Your task to perform on an android device: Show the shopping cart on costco.com. Add "macbook pro 15 inch" to the cart on costco.com Image 0: 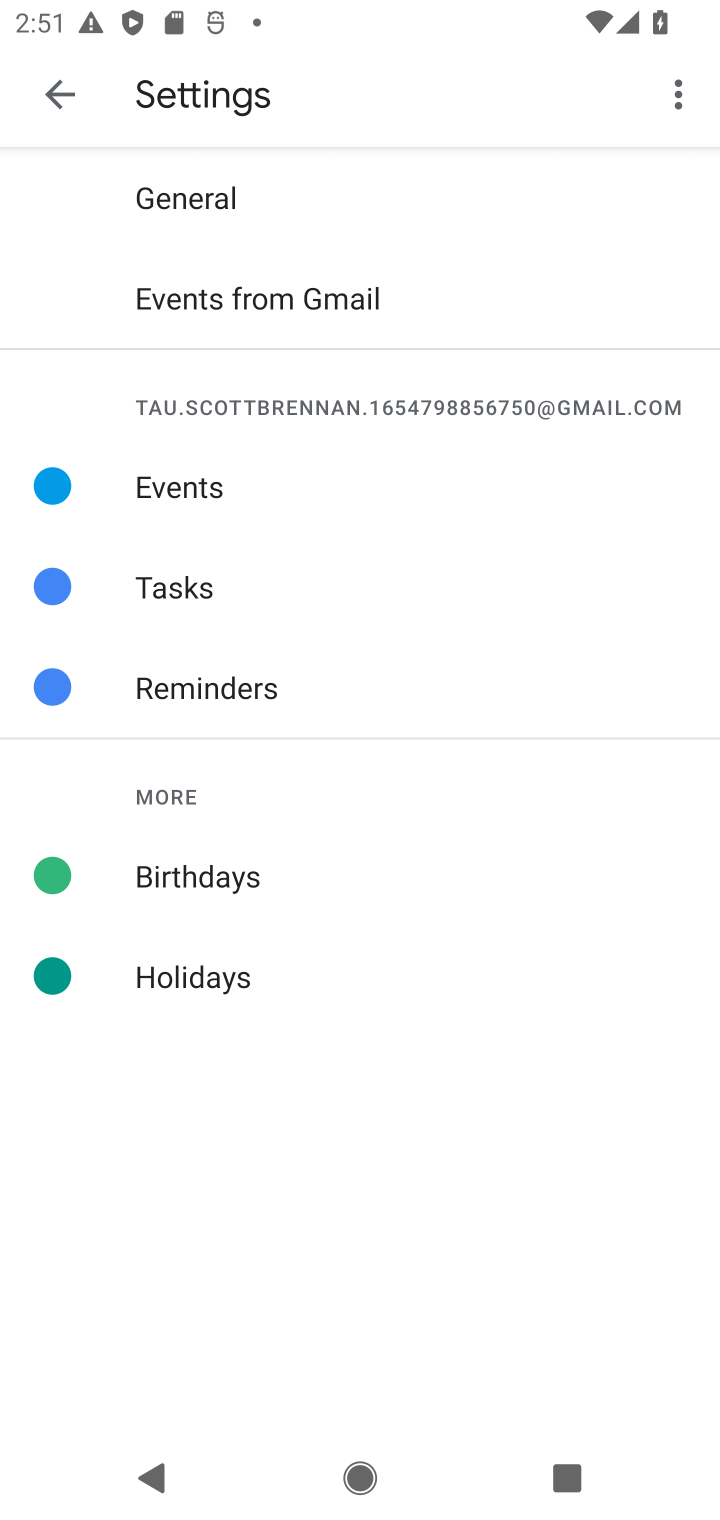
Step 0: press home button
Your task to perform on an android device: Show the shopping cart on costco.com. Add "macbook pro 15 inch" to the cart on costco.com Image 1: 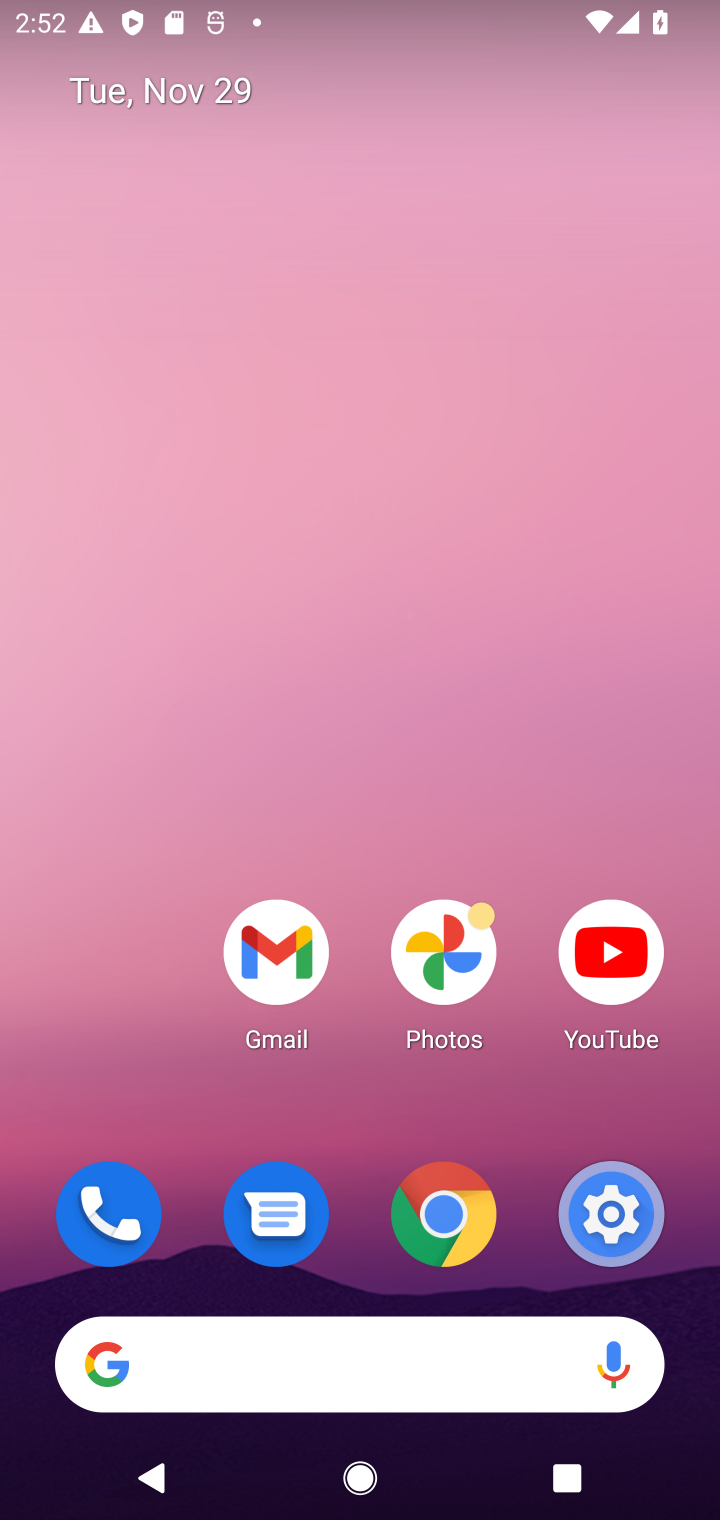
Step 1: click (241, 1344)
Your task to perform on an android device: Show the shopping cart on costco.com. Add "macbook pro 15 inch" to the cart on costco.com Image 2: 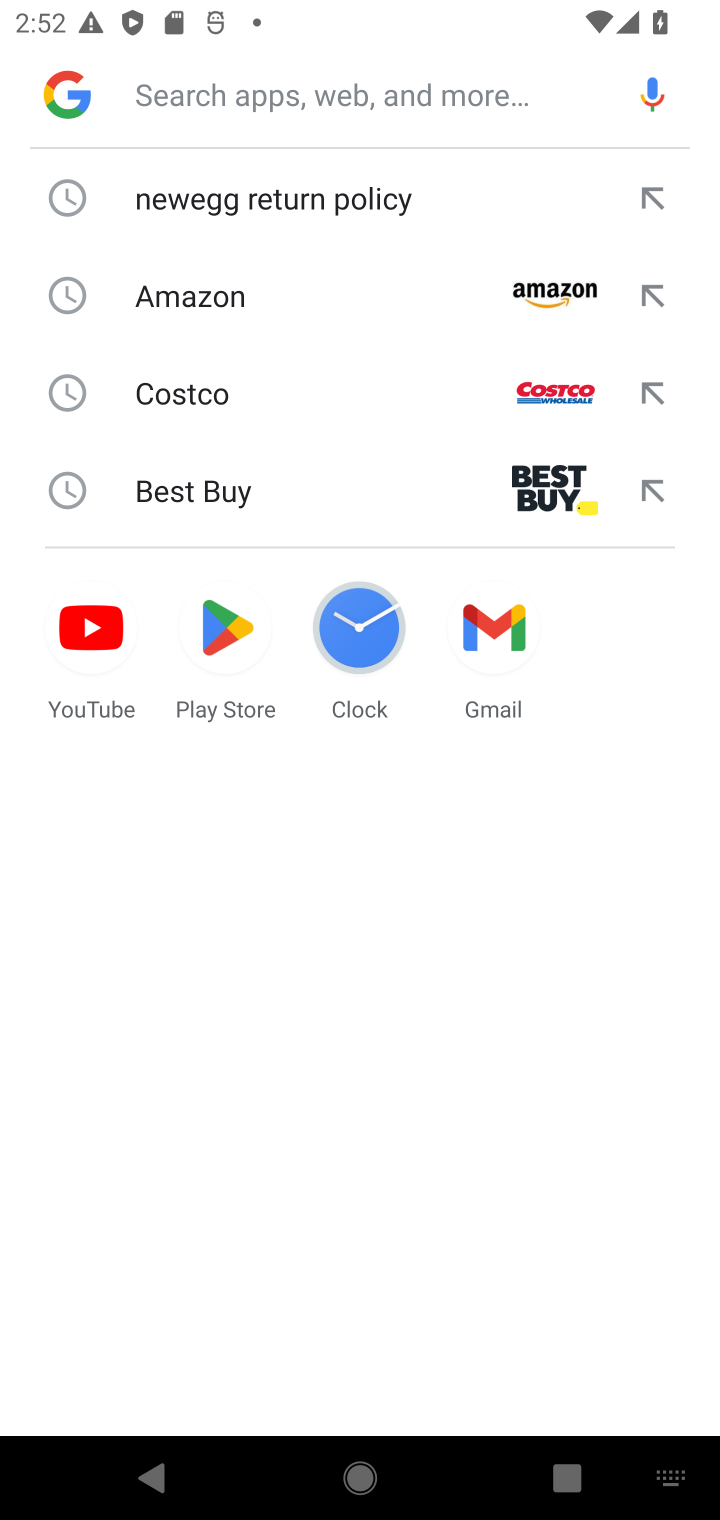
Step 2: type "costco.com"
Your task to perform on an android device: Show the shopping cart on costco.com. Add "macbook pro 15 inch" to the cart on costco.com Image 3: 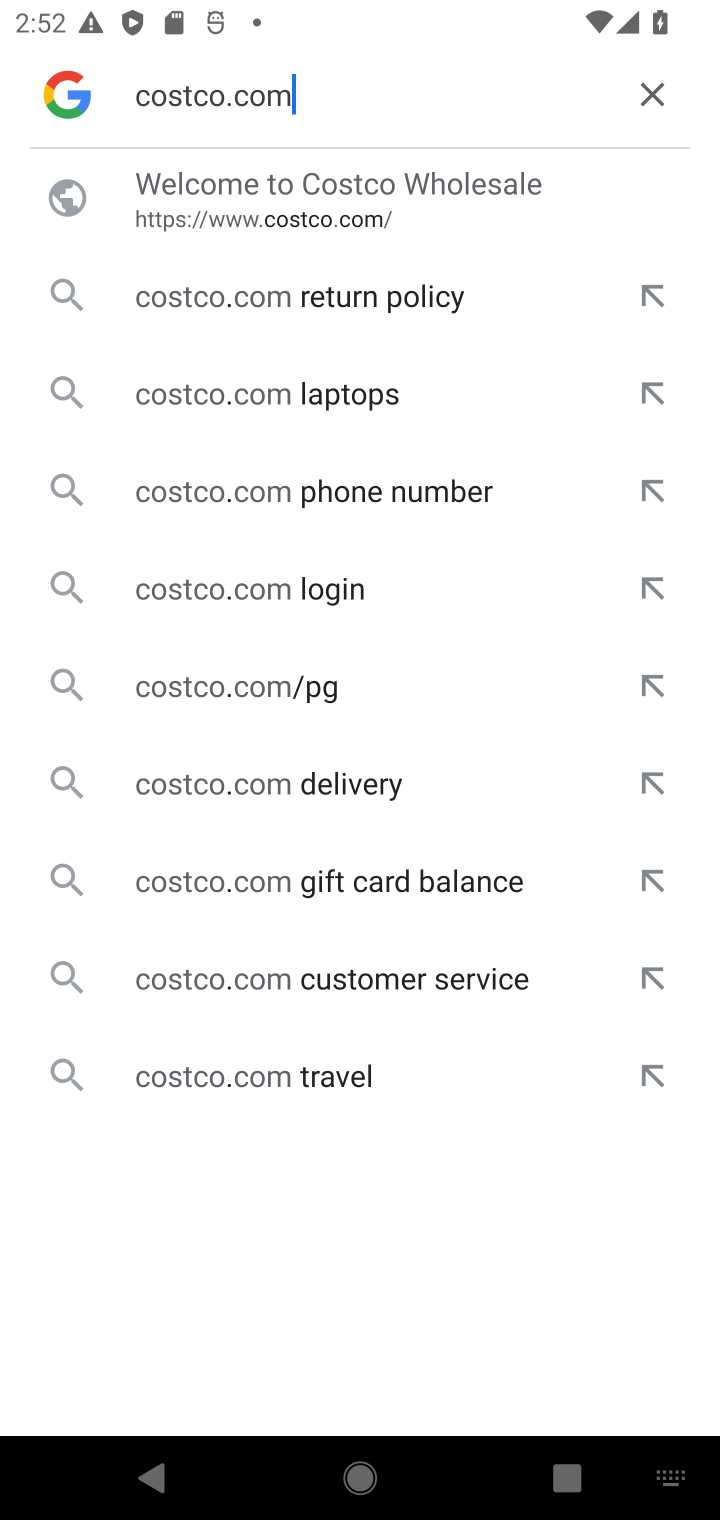
Step 3: click (316, 221)
Your task to perform on an android device: Show the shopping cart on costco.com. Add "macbook pro 15 inch" to the cart on costco.com Image 4: 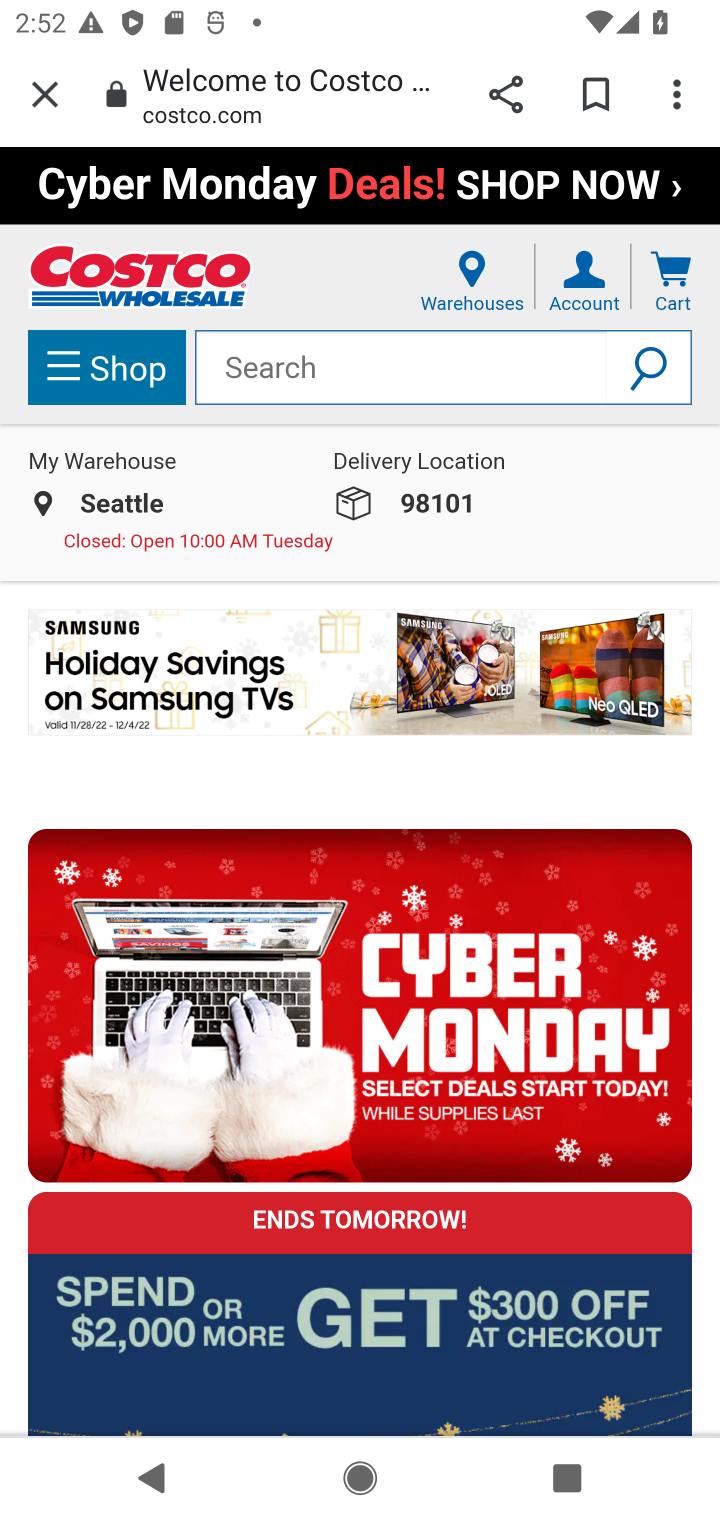
Step 4: click (247, 386)
Your task to perform on an android device: Show the shopping cart on costco.com. Add "macbook pro 15 inch" to the cart on costco.com Image 5: 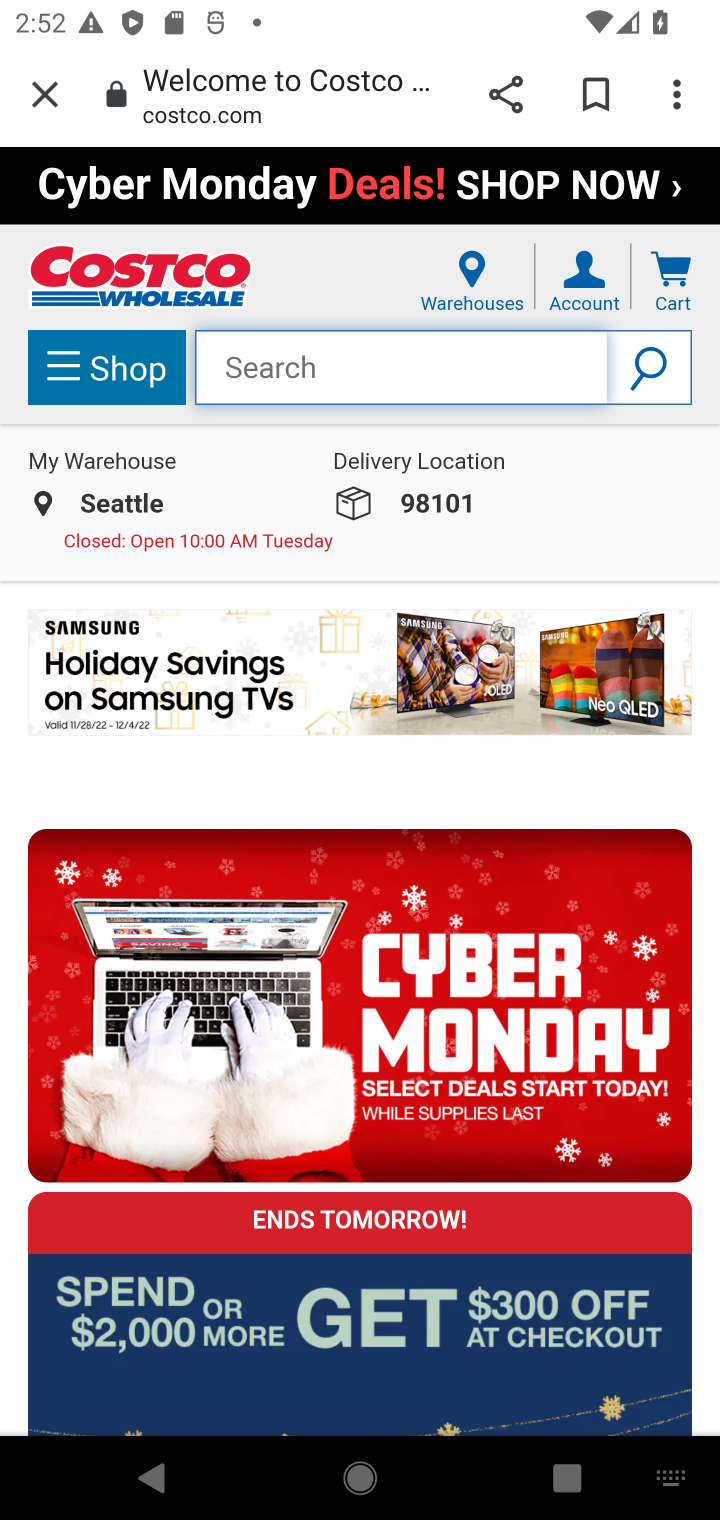
Step 5: type "macbook pro 15"
Your task to perform on an android device: Show the shopping cart on costco.com. Add "macbook pro 15 inch" to the cart on costco.com Image 6: 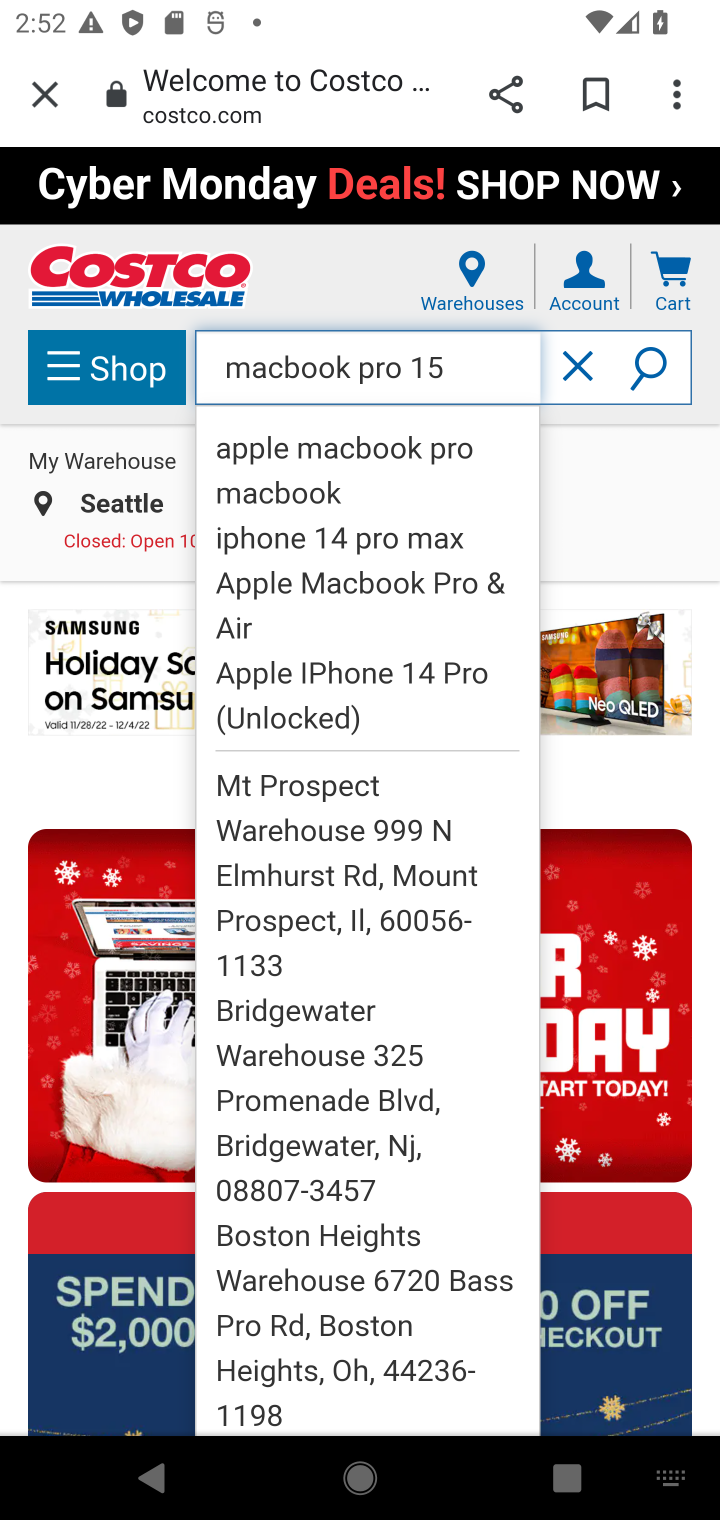
Step 6: click (375, 452)
Your task to perform on an android device: Show the shopping cart on costco.com. Add "macbook pro 15 inch" to the cart on costco.com Image 7: 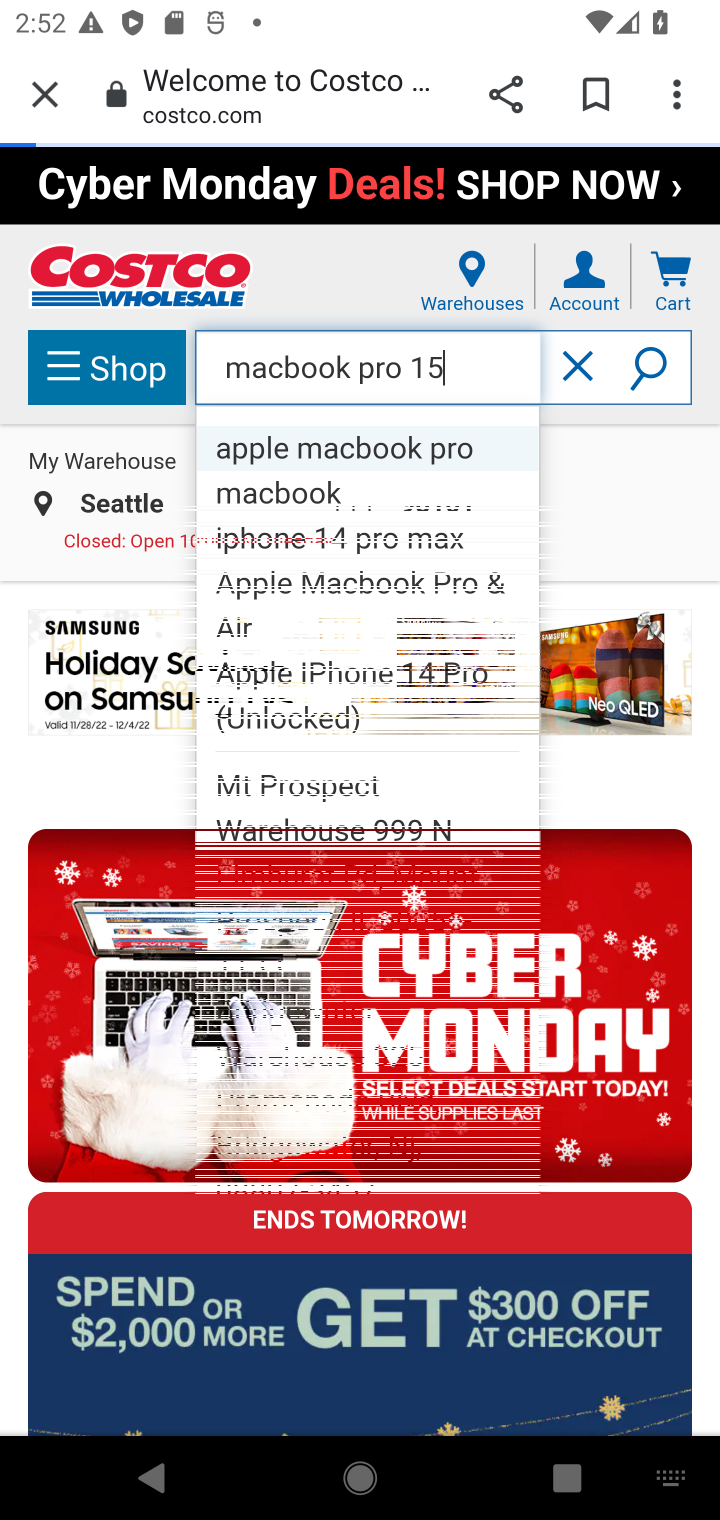
Step 7: task complete